Your task to perform on an android device: Go to Wikipedia Image 0: 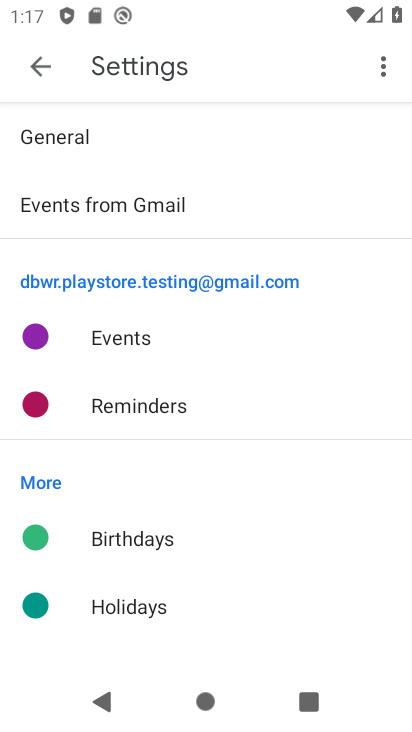
Step 0: press home button
Your task to perform on an android device: Go to Wikipedia Image 1: 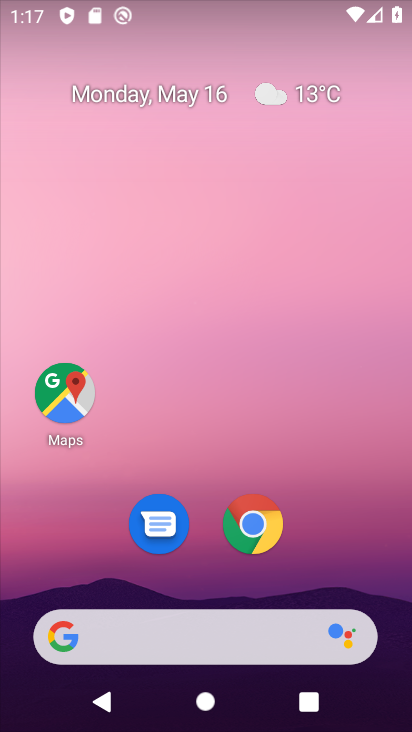
Step 1: click (257, 536)
Your task to perform on an android device: Go to Wikipedia Image 2: 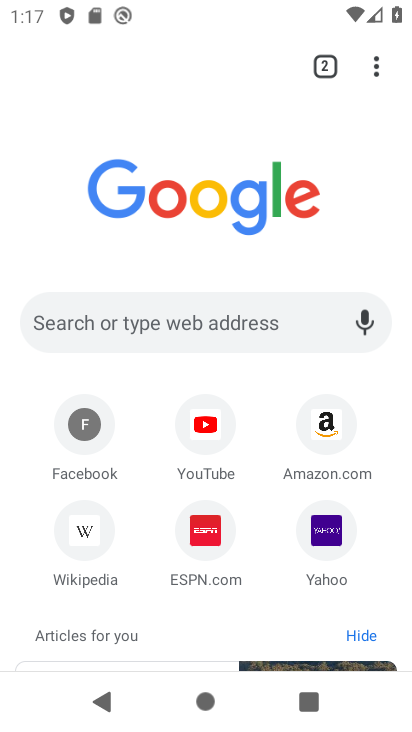
Step 2: click (80, 538)
Your task to perform on an android device: Go to Wikipedia Image 3: 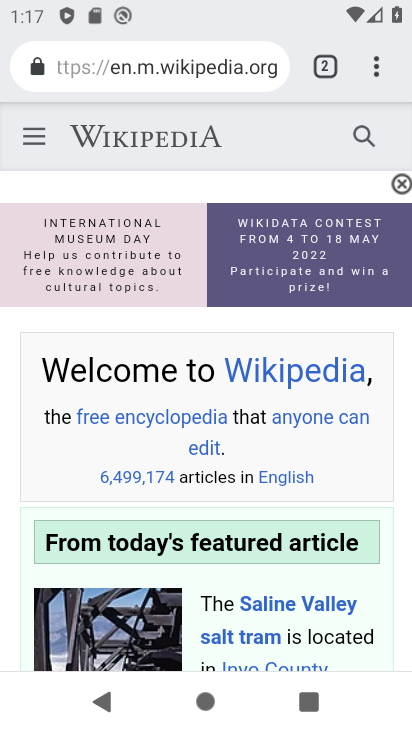
Step 3: task complete